Your task to perform on an android device: change the clock style Image 0: 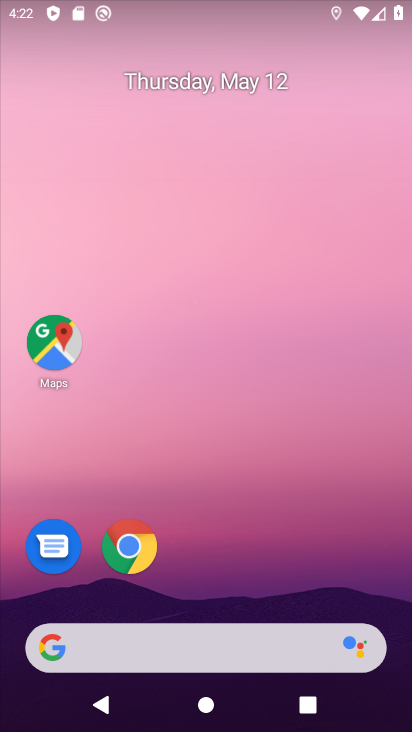
Step 0: drag from (251, 516) to (251, 51)
Your task to perform on an android device: change the clock style Image 1: 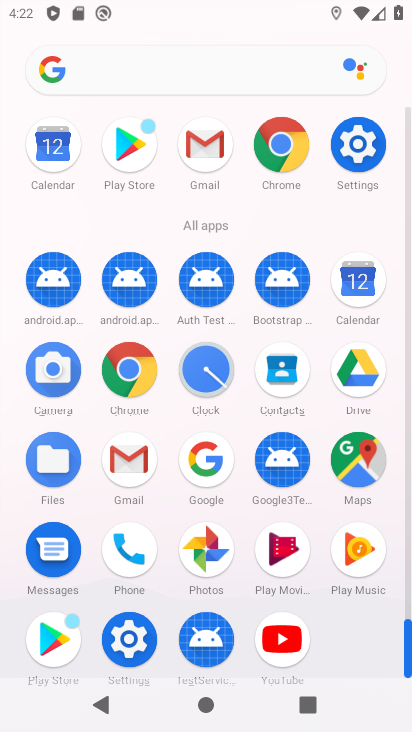
Step 1: drag from (8, 480) to (10, 290)
Your task to perform on an android device: change the clock style Image 2: 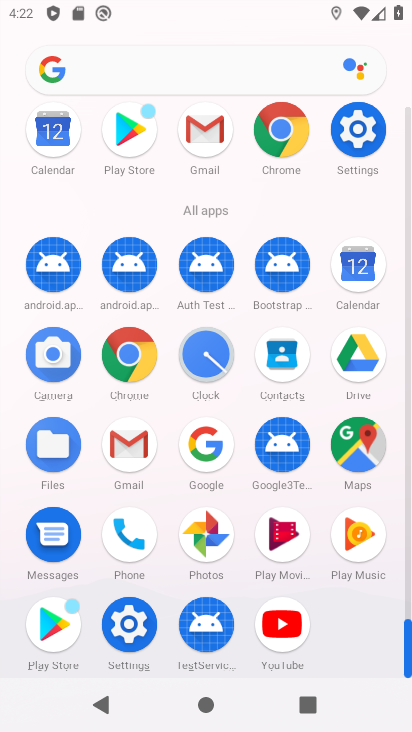
Step 2: click (206, 355)
Your task to perform on an android device: change the clock style Image 3: 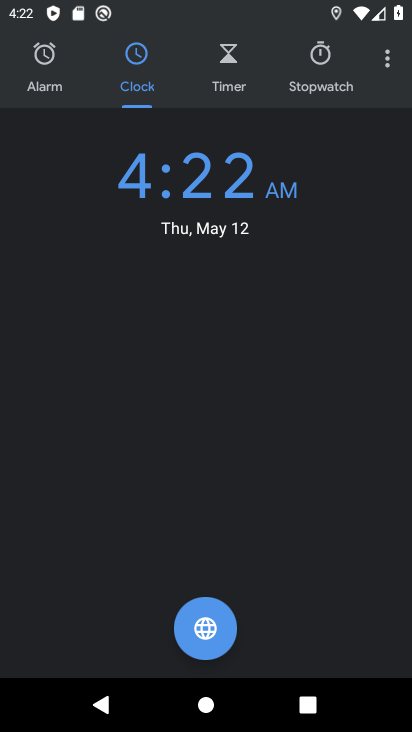
Step 3: drag from (381, 63) to (346, 109)
Your task to perform on an android device: change the clock style Image 4: 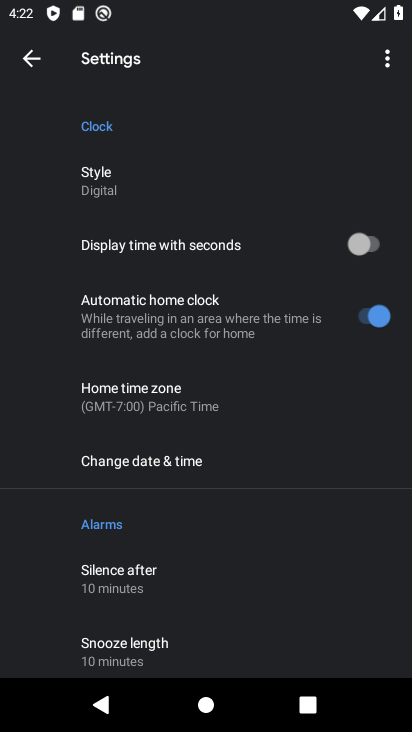
Step 4: drag from (170, 565) to (184, 142)
Your task to perform on an android device: change the clock style Image 5: 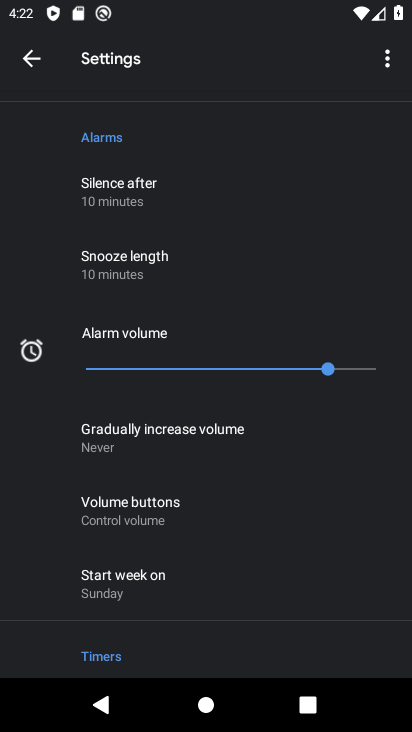
Step 5: drag from (161, 515) to (206, 131)
Your task to perform on an android device: change the clock style Image 6: 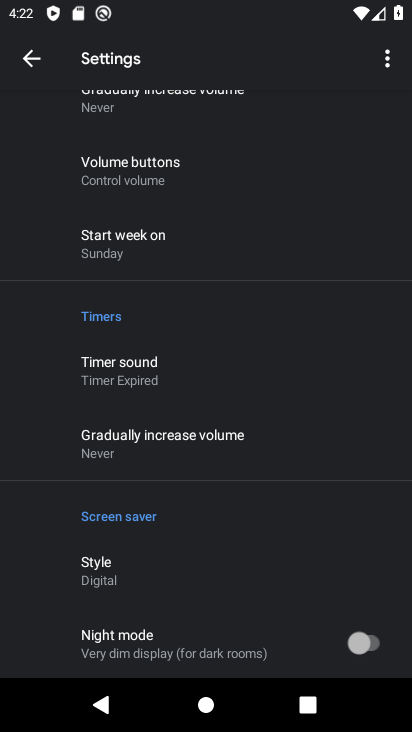
Step 6: click (42, 46)
Your task to perform on an android device: change the clock style Image 7: 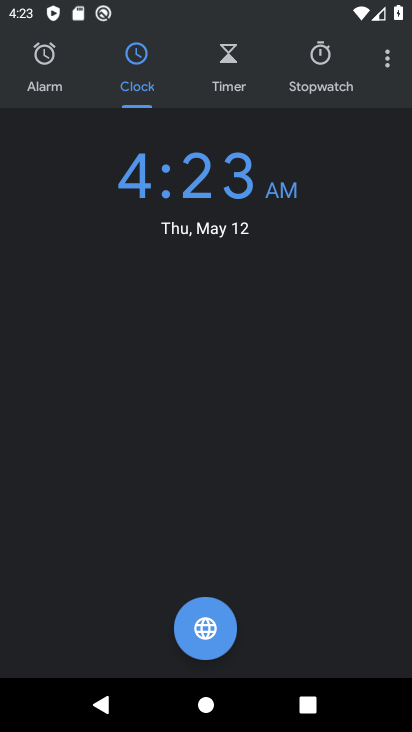
Step 7: click (387, 51)
Your task to perform on an android device: change the clock style Image 8: 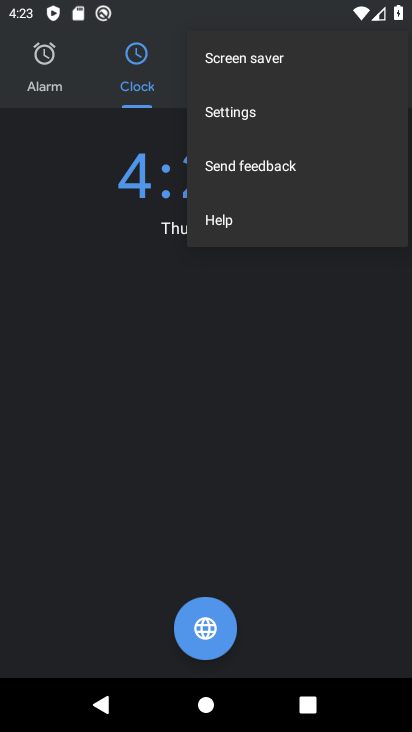
Step 8: click (254, 115)
Your task to perform on an android device: change the clock style Image 9: 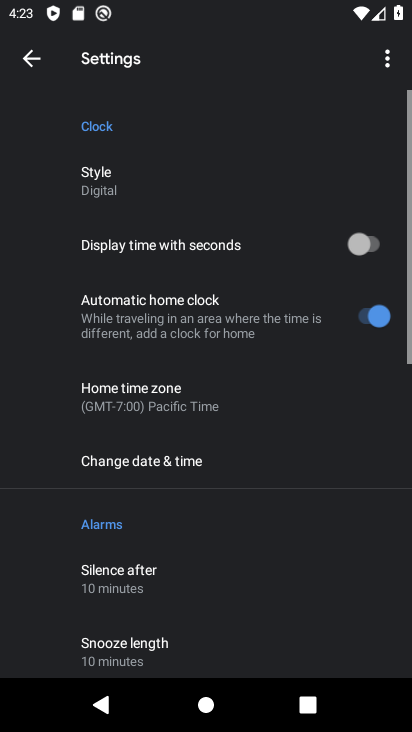
Step 9: click (125, 165)
Your task to perform on an android device: change the clock style Image 10: 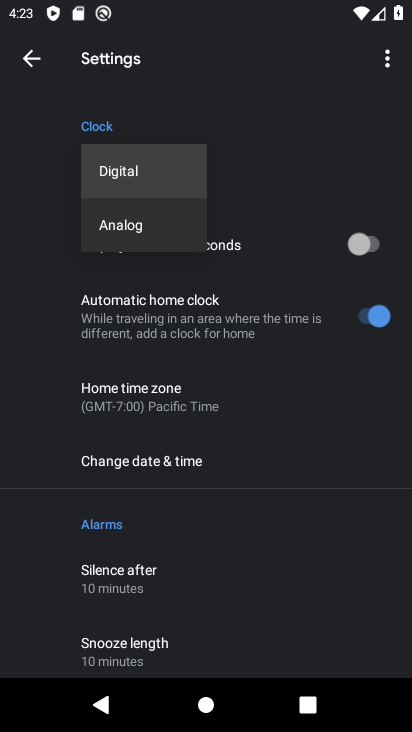
Step 10: click (140, 208)
Your task to perform on an android device: change the clock style Image 11: 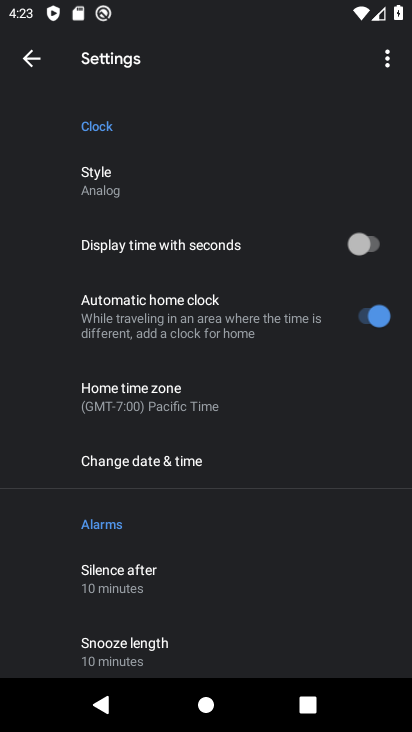
Step 11: task complete